Your task to perform on an android device: turn off sleep mode Image 0: 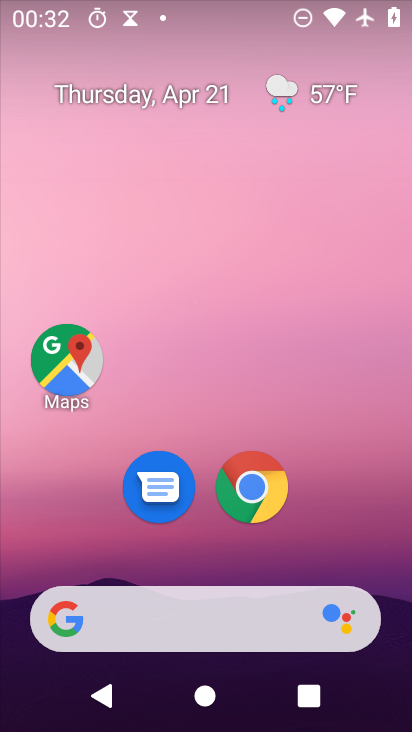
Step 0: drag from (331, 515) to (234, 42)
Your task to perform on an android device: turn off sleep mode Image 1: 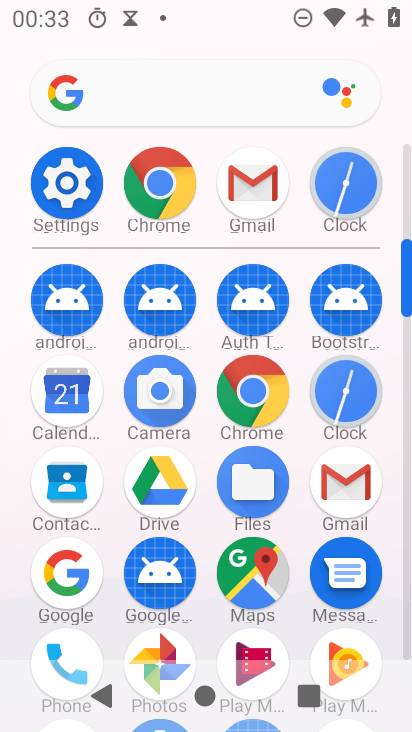
Step 1: click (74, 180)
Your task to perform on an android device: turn off sleep mode Image 2: 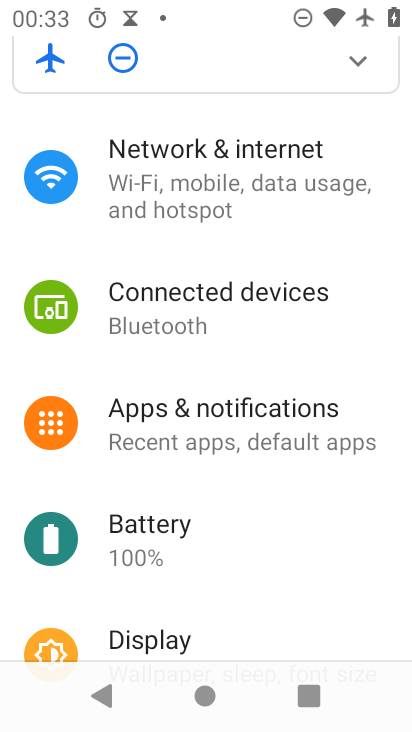
Step 2: drag from (261, 484) to (259, 251)
Your task to perform on an android device: turn off sleep mode Image 3: 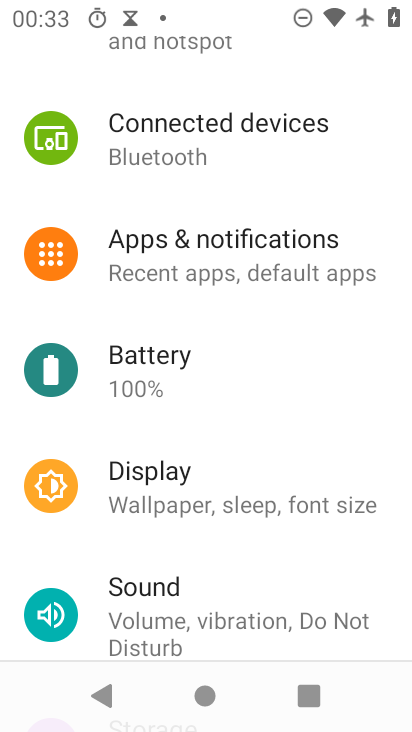
Step 3: click (243, 489)
Your task to perform on an android device: turn off sleep mode Image 4: 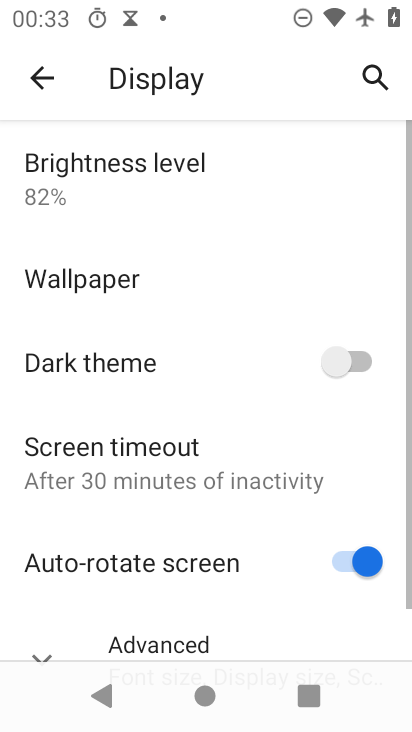
Step 4: drag from (229, 547) to (168, 181)
Your task to perform on an android device: turn off sleep mode Image 5: 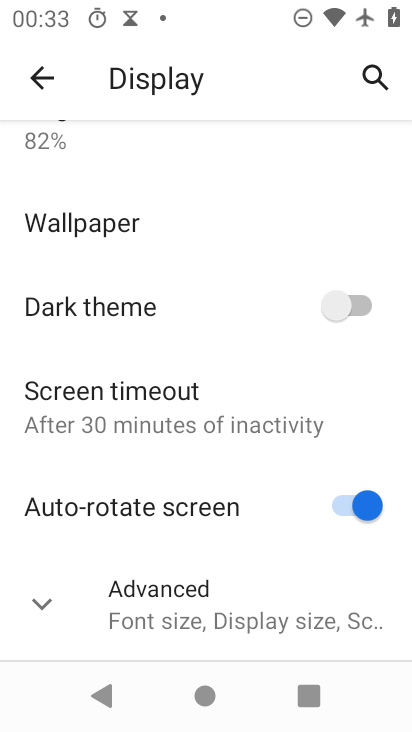
Step 5: click (32, 599)
Your task to perform on an android device: turn off sleep mode Image 6: 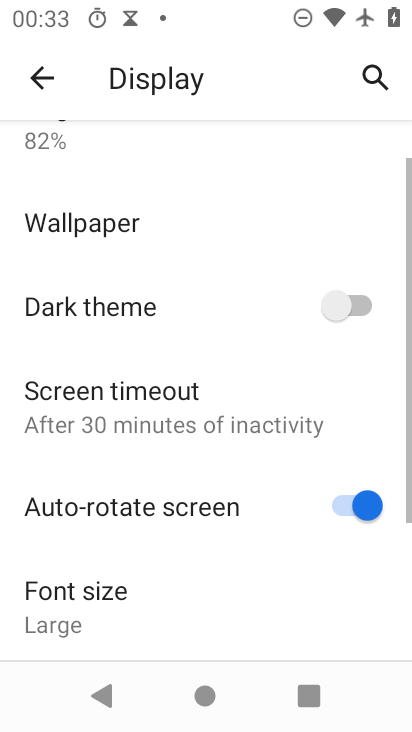
Step 6: task complete